Your task to perform on an android device: toggle data saver in the chrome app Image 0: 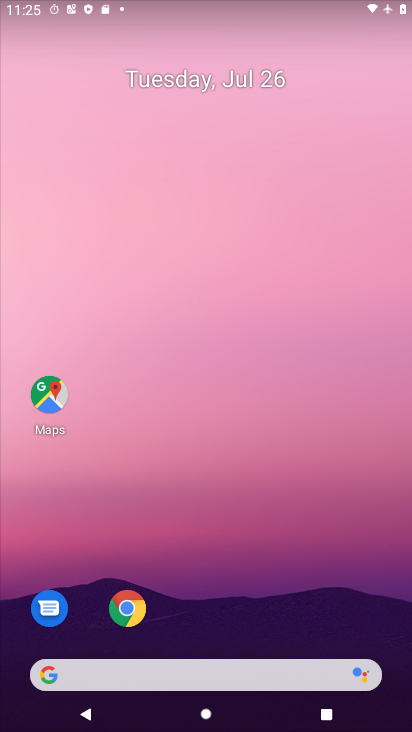
Step 0: click (126, 599)
Your task to perform on an android device: toggle data saver in the chrome app Image 1: 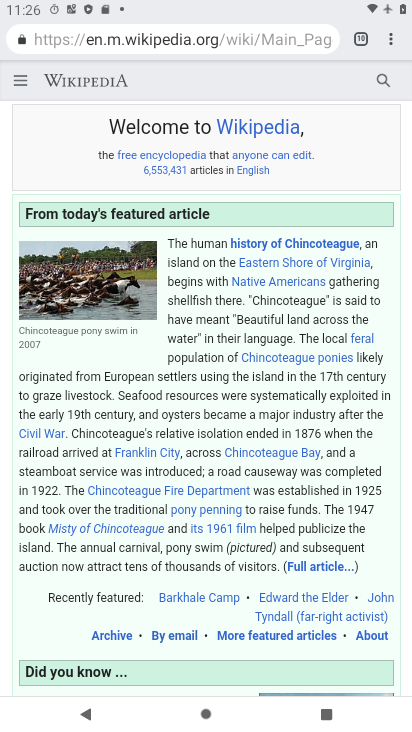
Step 1: click (391, 43)
Your task to perform on an android device: toggle data saver in the chrome app Image 2: 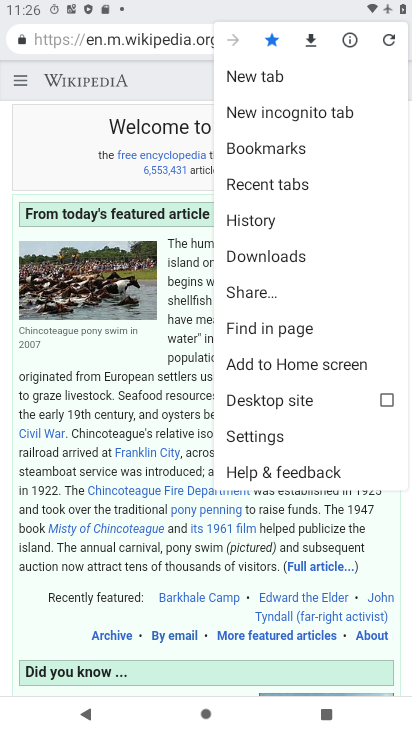
Step 2: click (279, 428)
Your task to perform on an android device: toggle data saver in the chrome app Image 3: 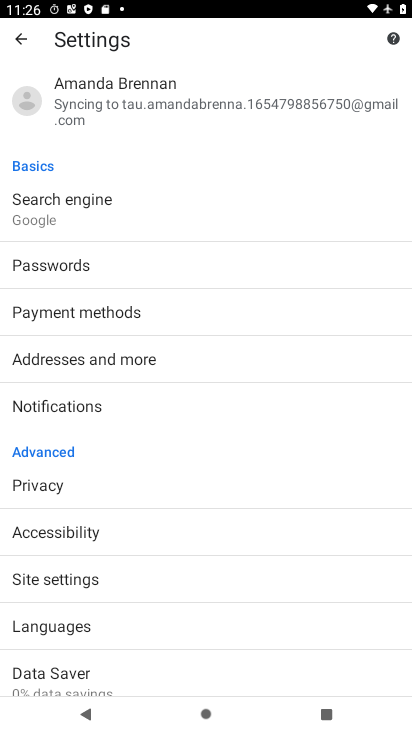
Step 3: click (96, 673)
Your task to perform on an android device: toggle data saver in the chrome app Image 4: 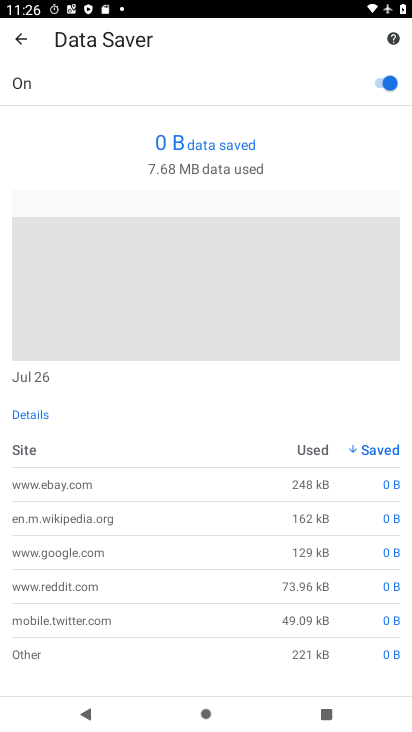
Step 4: click (371, 78)
Your task to perform on an android device: toggle data saver in the chrome app Image 5: 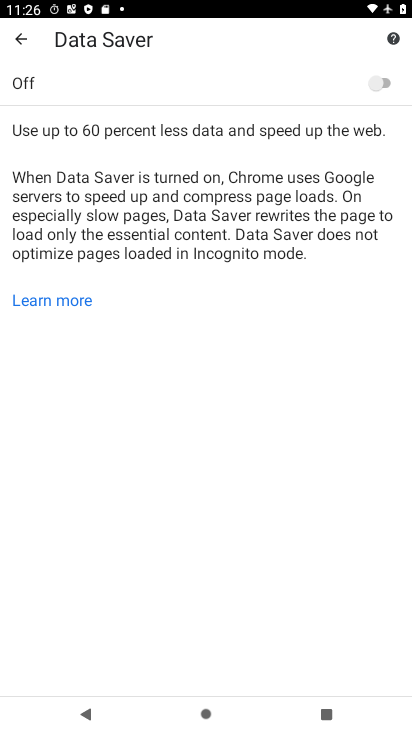
Step 5: task complete